Your task to perform on an android device: turn off picture-in-picture Image 0: 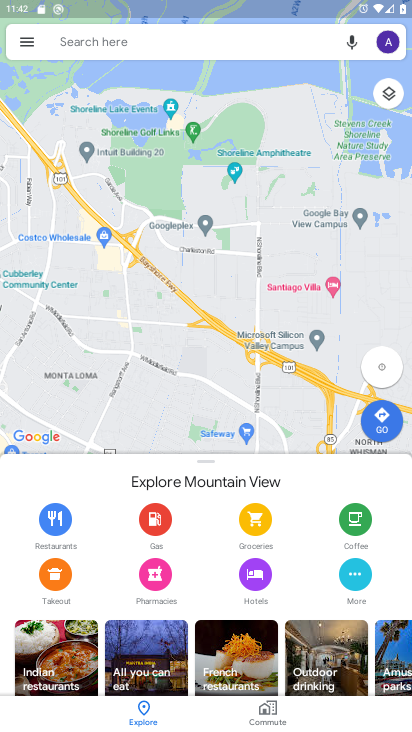
Step 0: press home button
Your task to perform on an android device: turn off picture-in-picture Image 1: 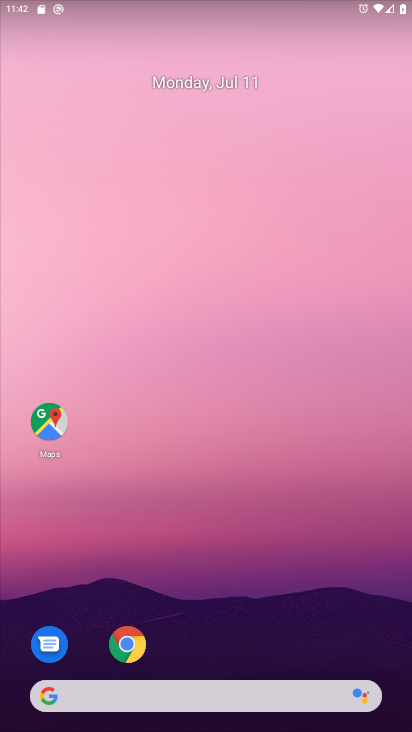
Step 1: click (126, 644)
Your task to perform on an android device: turn off picture-in-picture Image 2: 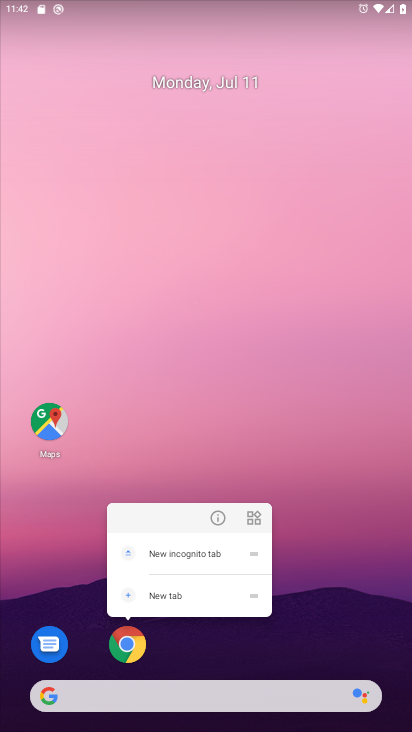
Step 2: click (217, 516)
Your task to perform on an android device: turn off picture-in-picture Image 3: 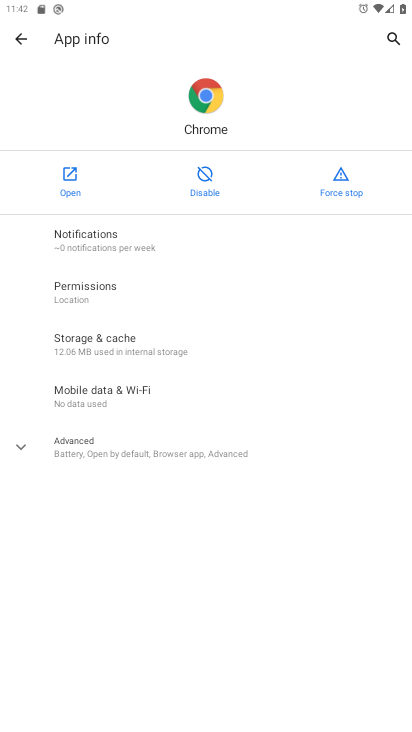
Step 3: click (115, 435)
Your task to perform on an android device: turn off picture-in-picture Image 4: 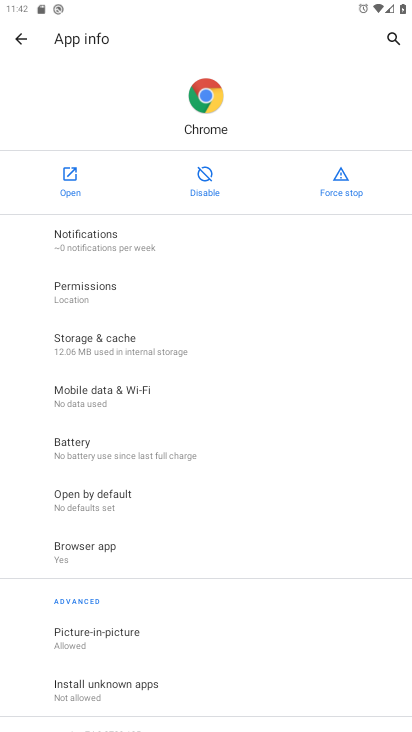
Step 4: click (114, 647)
Your task to perform on an android device: turn off picture-in-picture Image 5: 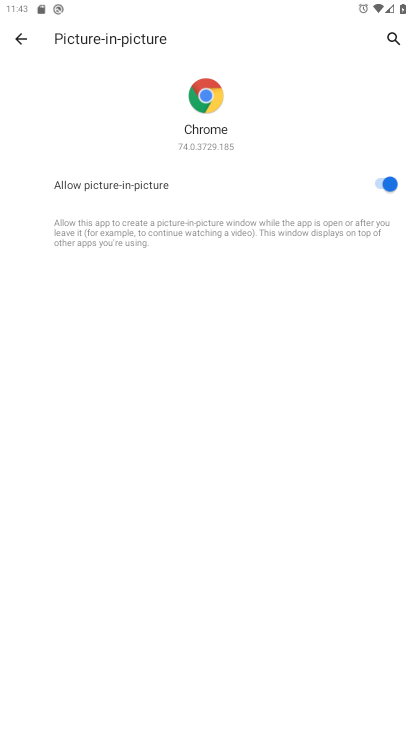
Step 5: click (381, 194)
Your task to perform on an android device: turn off picture-in-picture Image 6: 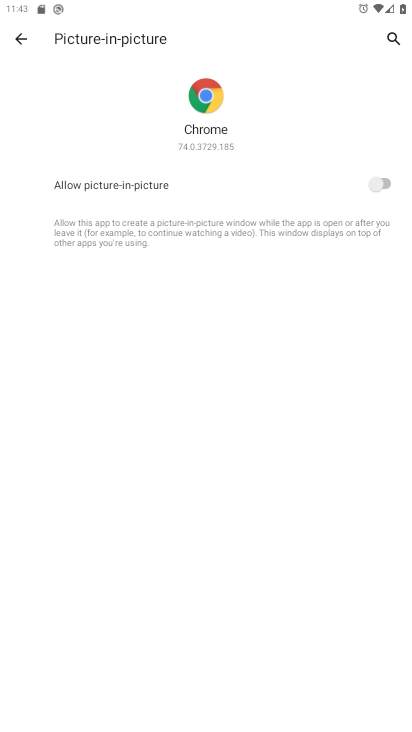
Step 6: task complete